Your task to perform on an android device: Open the calendar and show me this week's events Image 0: 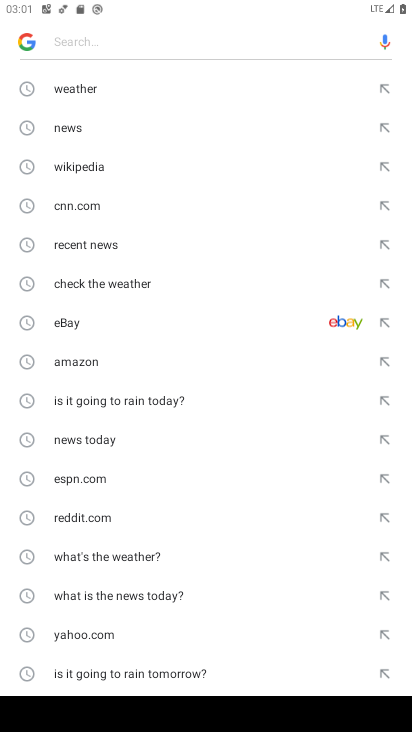
Step 0: press home button
Your task to perform on an android device: Open the calendar and show me this week's events Image 1: 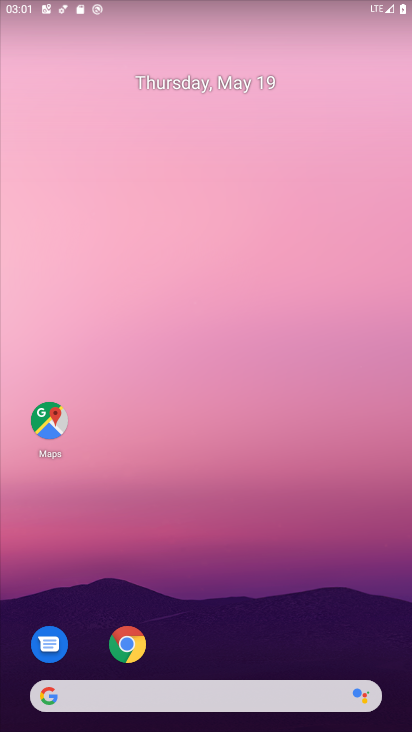
Step 1: drag from (248, 618) to (234, 241)
Your task to perform on an android device: Open the calendar and show me this week's events Image 2: 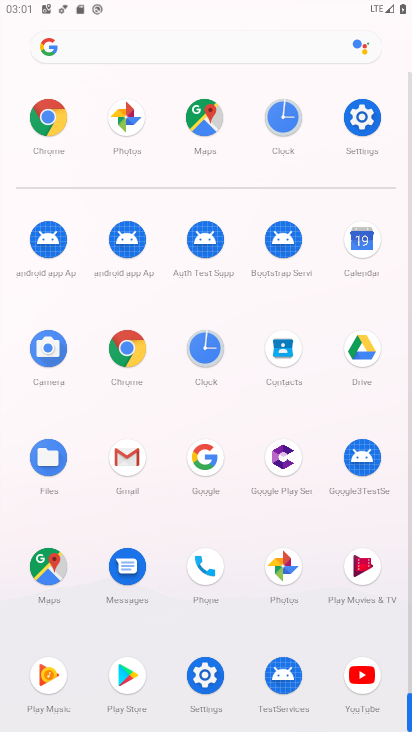
Step 2: click (361, 253)
Your task to perform on an android device: Open the calendar and show me this week's events Image 3: 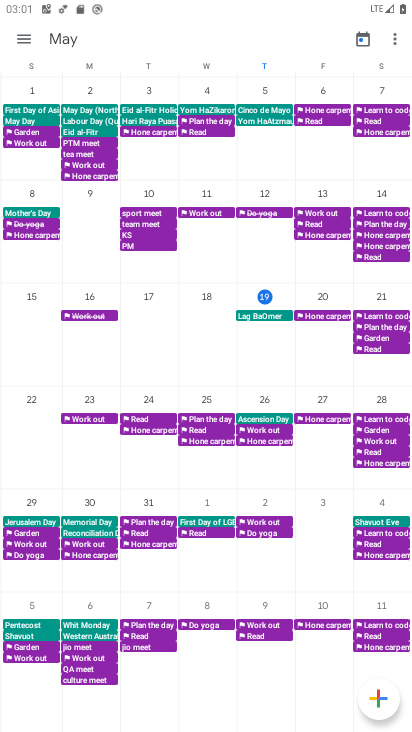
Step 3: task complete